Your task to perform on an android device: Show me recent news Image 0: 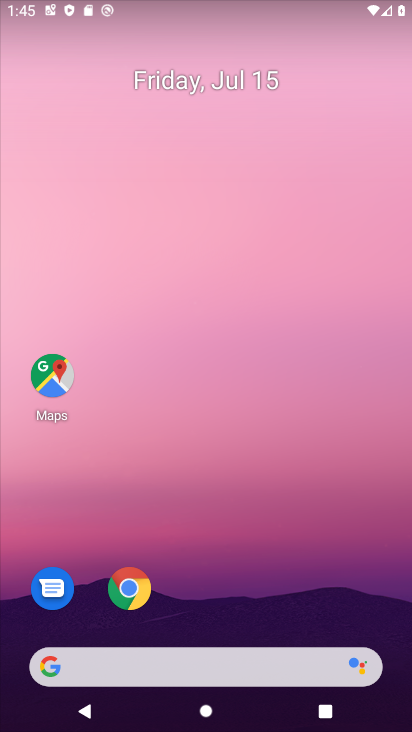
Step 0: click (122, 670)
Your task to perform on an android device: Show me recent news Image 1: 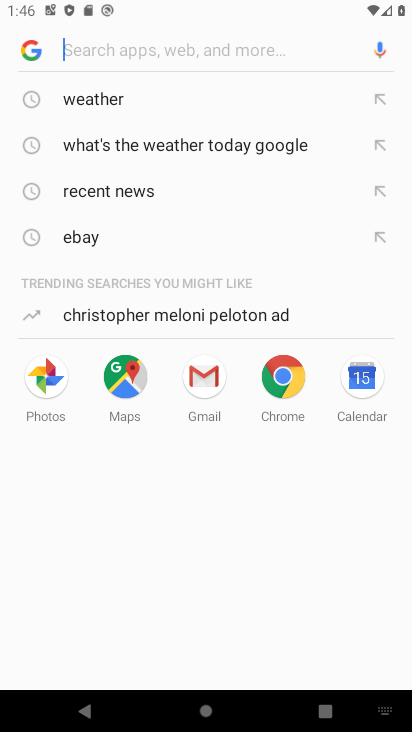
Step 1: type "recent news "
Your task to perform on an android device: Show me recent news Image 2: 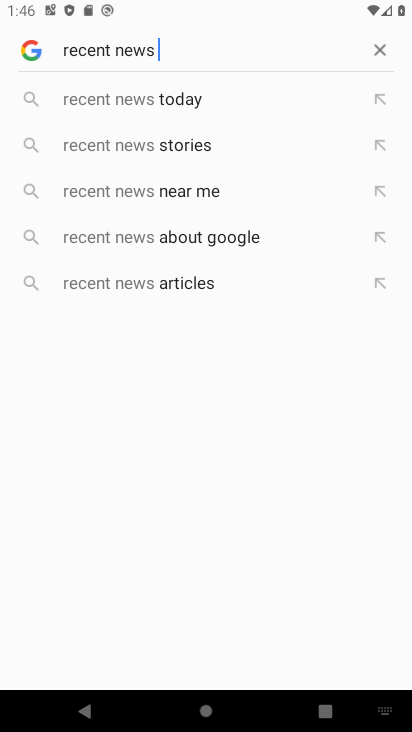
Step 2: click (287, 93)
Your task to perform on an android device: Show me recent news Image 3: 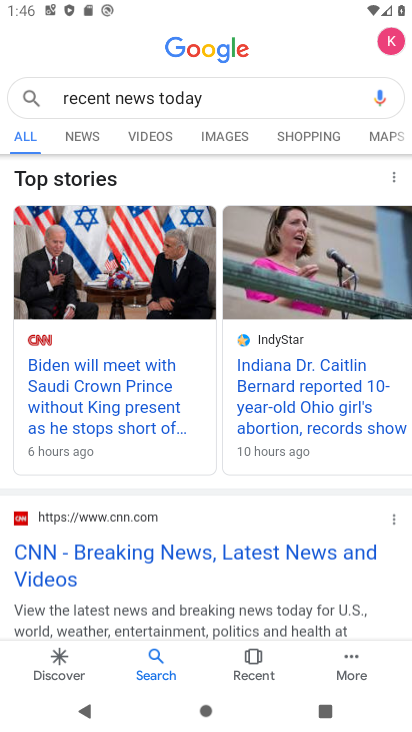
Step 3: click (79, 133)
Your task to perform on an android device: Show me recent news Image 4: 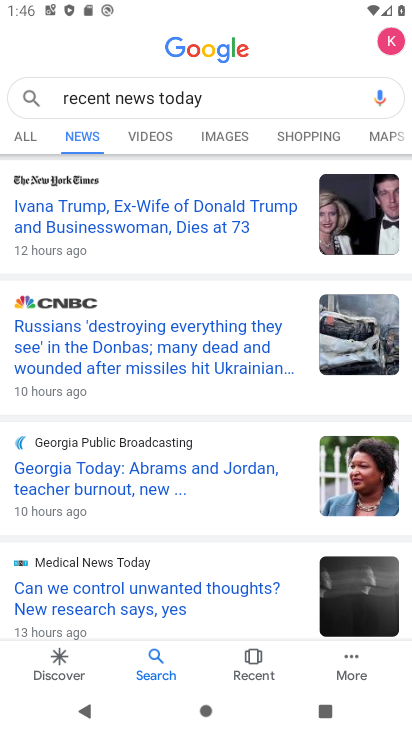
Step 4: task complete